Your task to perform on an android device: Open Youtube and go to "Your channel" Image 0: 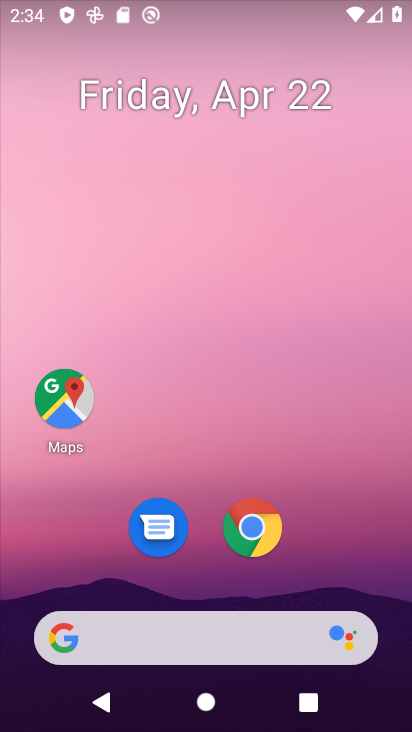
Step 0: drag from (389, 530) to (238, 39)
Your task to perform on an android device: Open Youtube and go to "Your channel" Image 1: 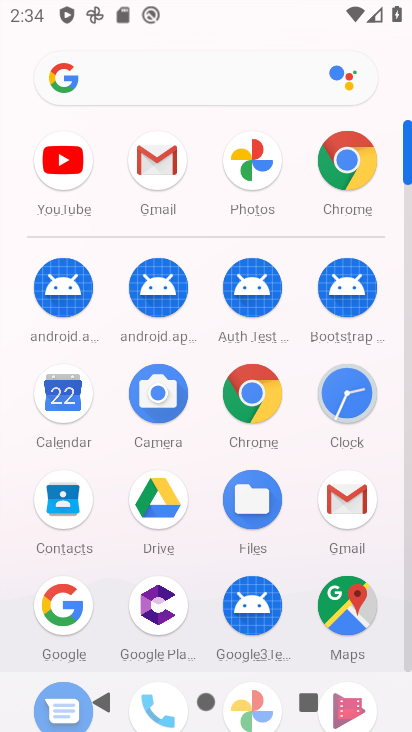
Step 1: click (57, 146)
Your task to perform on an android device: Open Youtube and go to "Your channel" Image 2: 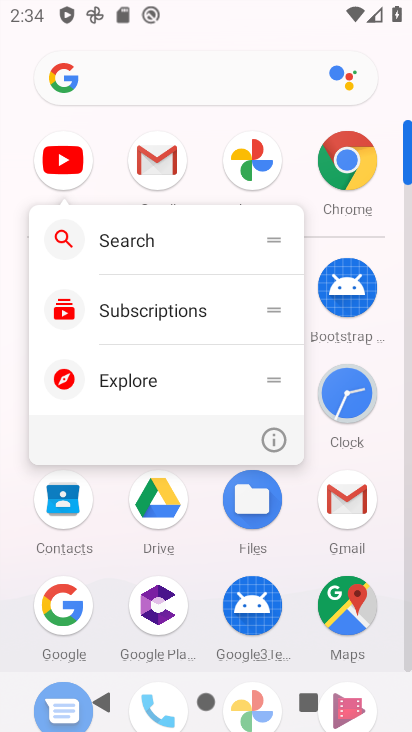
Step 2: click (57, 146)
Your task to perform on an android device: Open Youtube and go to "Your channel" Image 3: 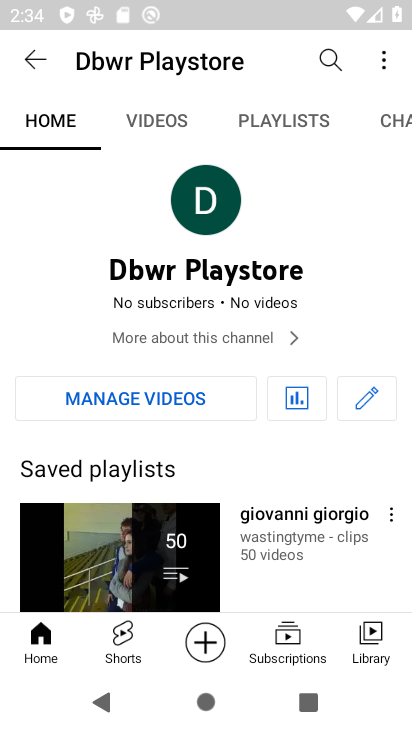
Step 3: task complete